Your task to perform on an android device: choose inbox layout in the gmail app Image 0: 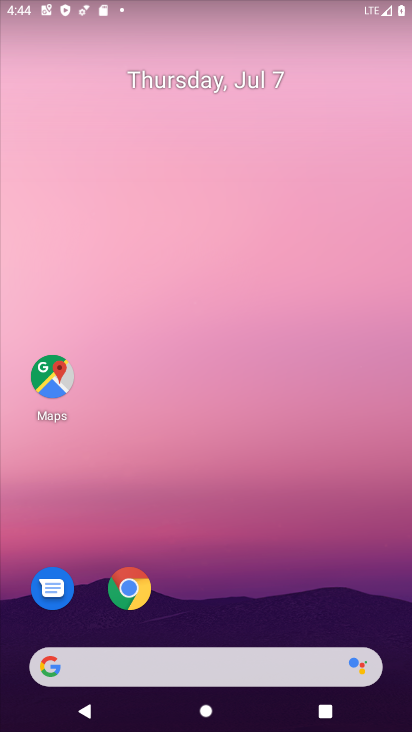
Step 0: drag from (349, 624) to (344, 153)
Your task to perform on an android device: choose inbox layout in the gmail app Image 1: 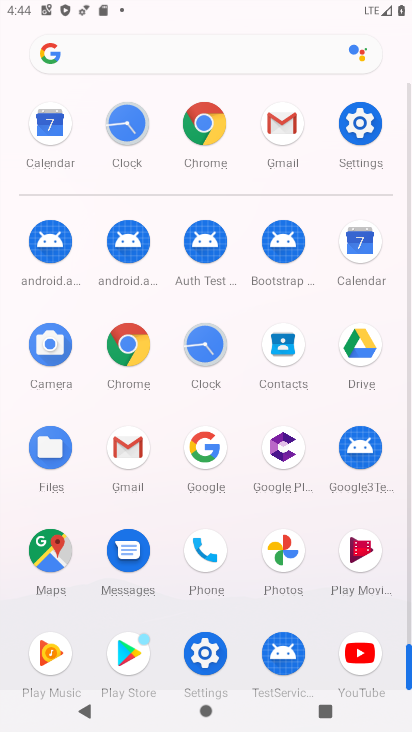
Step 1: click (135, 445)
Your task to perform on an android device: choose inbox layout in the gmail app Image 2: 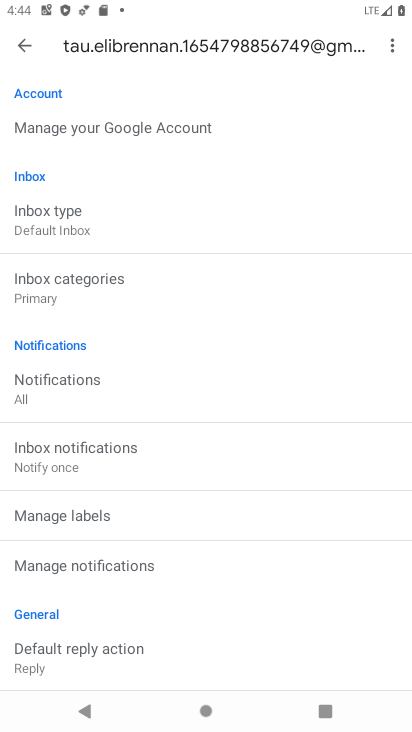
Step 2: click (154, 229)
Your task to perform on an android device: choose inbox layout in the gmail app Image 3: 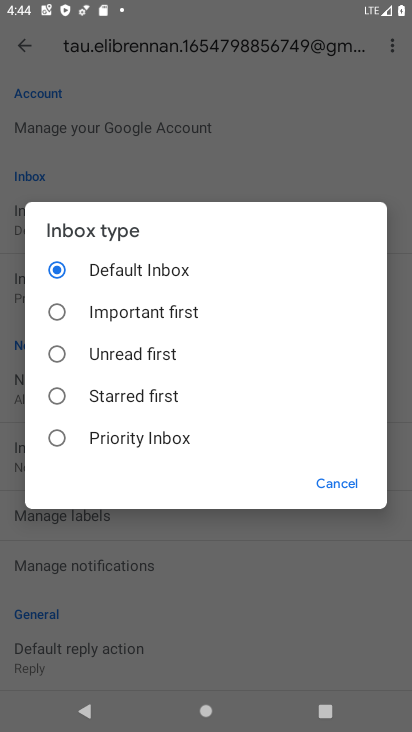
Step 3: click (126, 273)
Your task to perform on an android device: choose inbox layout in the gmail app Image 4: 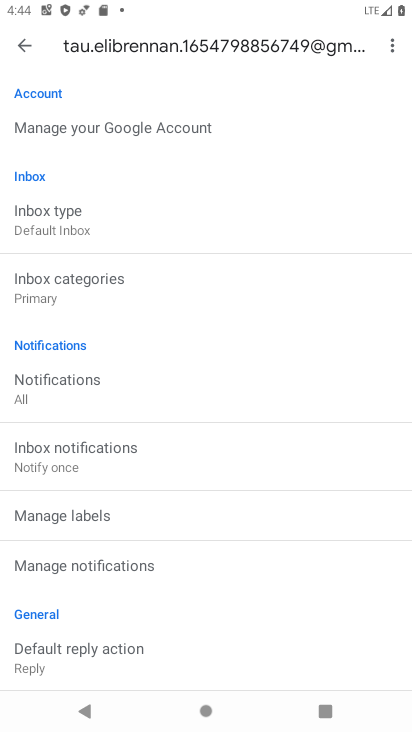
Step 4: task complete